Your task to perform on an android device: Go to Maps Image 0: 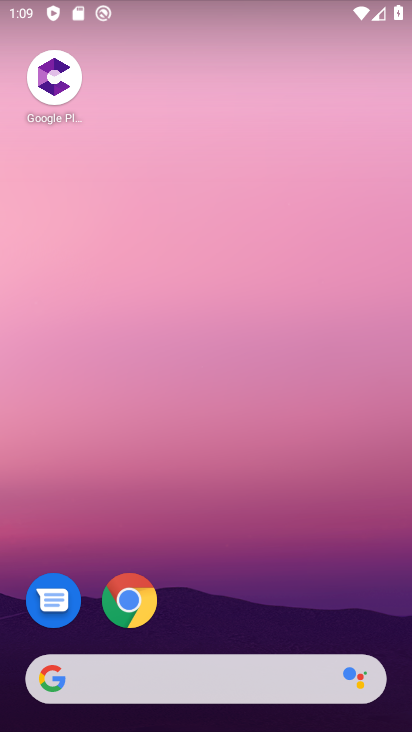
Step 0: drag from (215, 602) to (211, 0)
Your task to perform on an android device: Go to Maps Image 1: 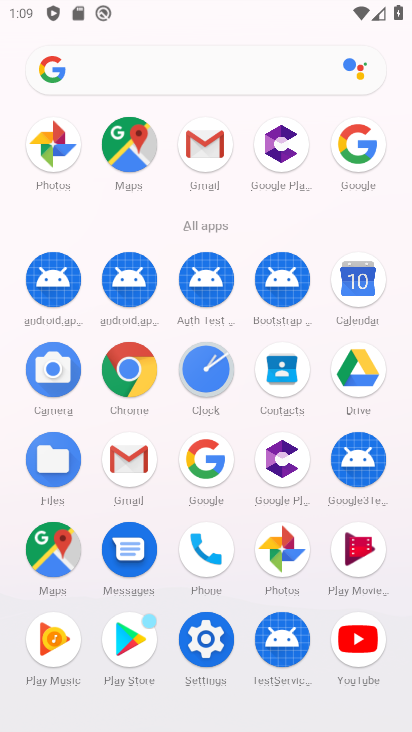
Step 1: click (55, 556)
Your task to perform on an android device: Go to Maps Image 2: 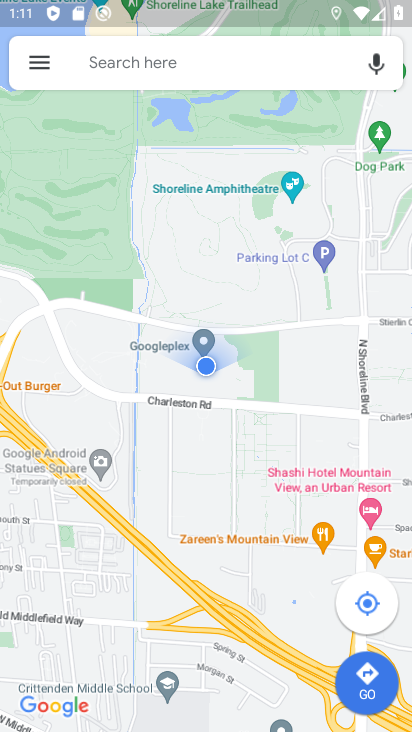
Step 2: task complete